Your task to perform on an android device: Go to Google Image 0: 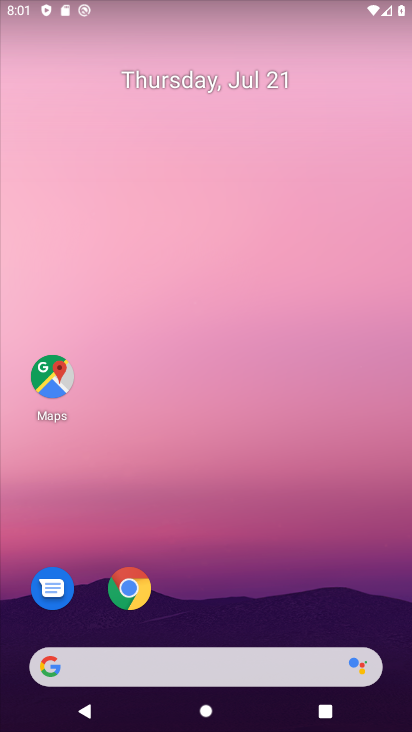
Step 0: drag from (255, 680) to (280, 291)
Your task to perform on an android device: Go to Google Image 1: 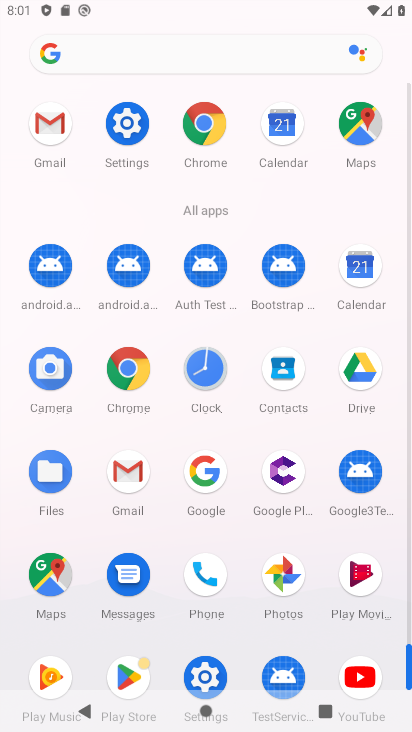
Step 1: click (203, 482)
Your task to perform on an android device: Go to Google Image 2: 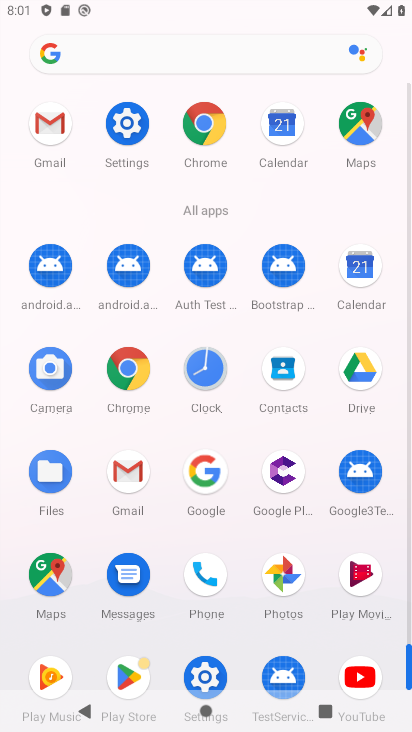
Step 2: click (204, 480)
Your task to perform on an android device: Go to Google Image 3: 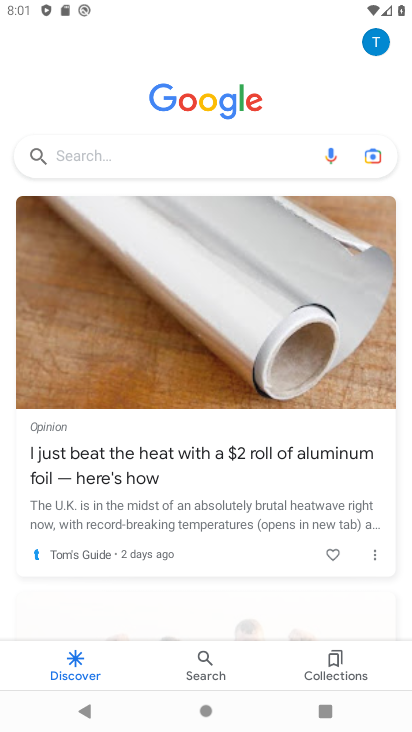
Step 3: task complete